Your task to perform on an android device: Go to Google Image 0: 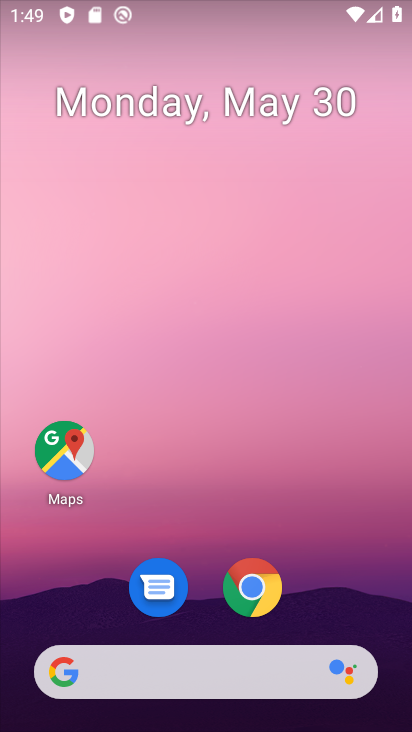
Step 0: drag from (138, 719) to (70, 6)
Your task to perform on an android device: Go to Google Image 1: 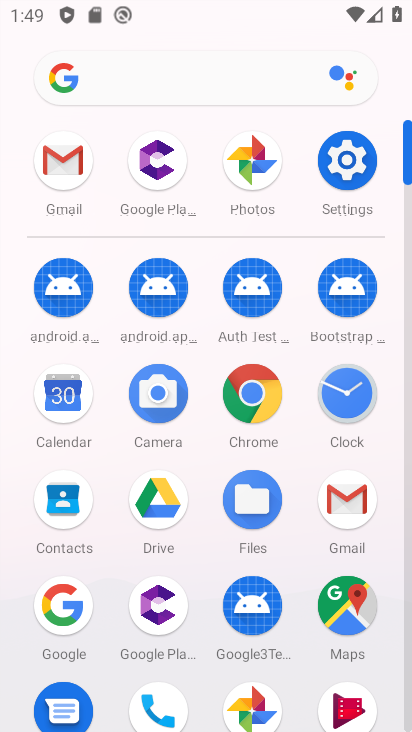
Step 1: click (69, 620)
Your task to perform on an android device: Go to Google Image 2: 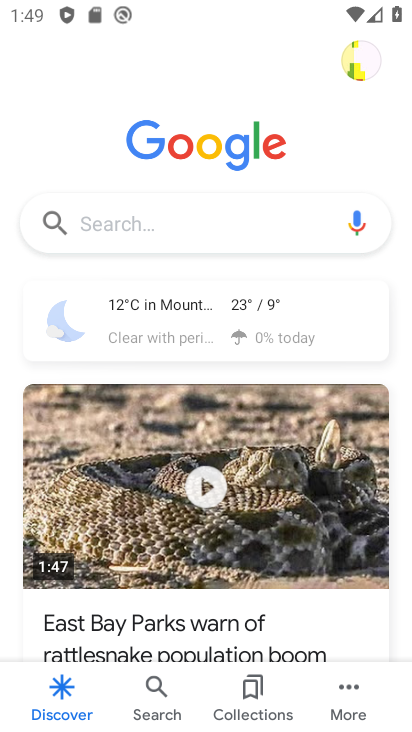
Step 2: task complete